Your task to perform on an android device: toggle notification dots Image 0: 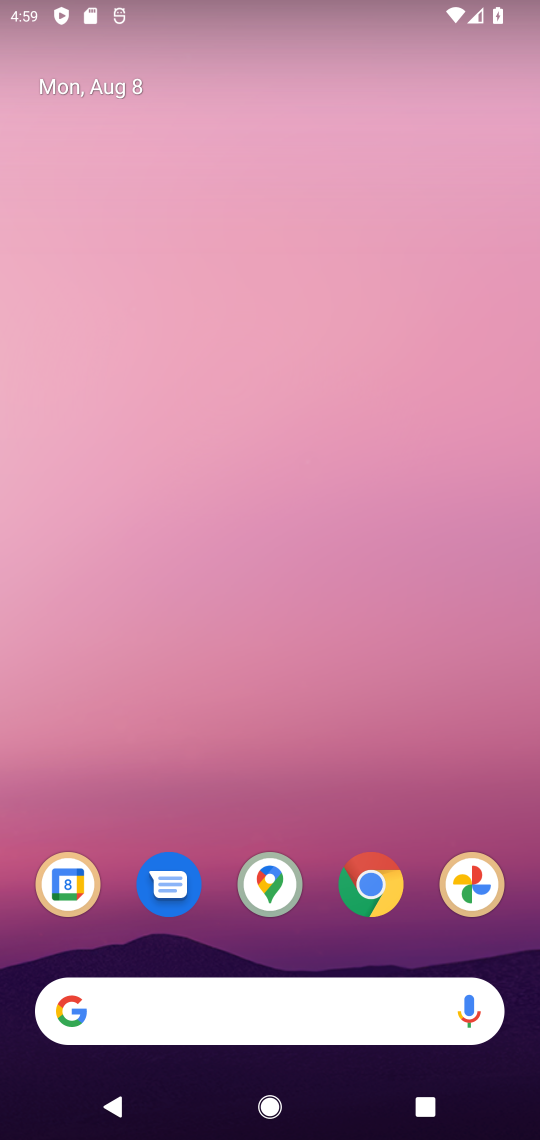
Step 0: drag from (410, 836) to (263, 39)
Your task to perform on an android device: toggle notification dots Image 1: 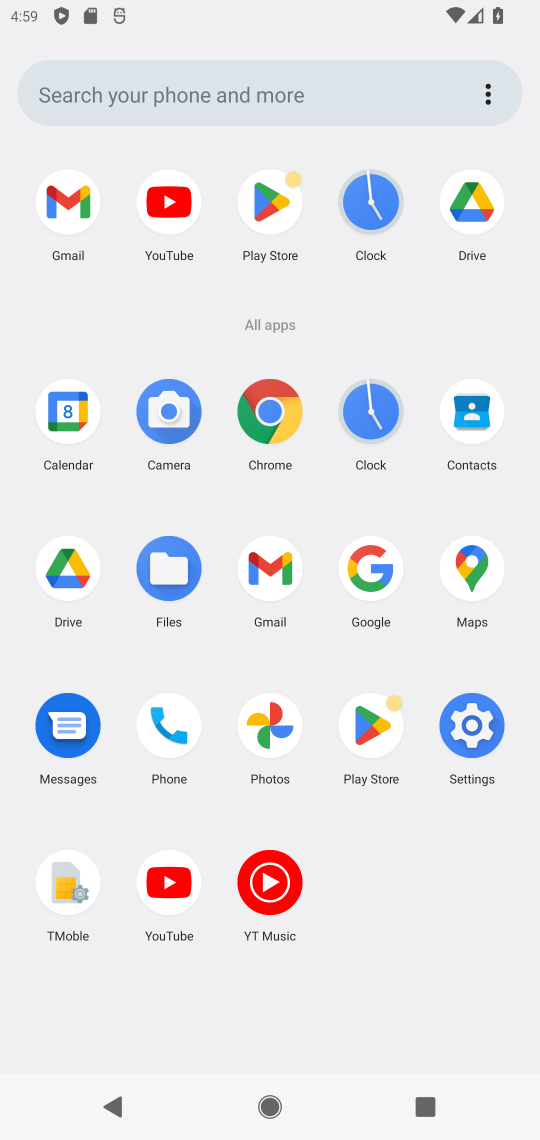
Step 1: click (476, 727)
Your task to perform on an android device: toggle notification dots Image 2: 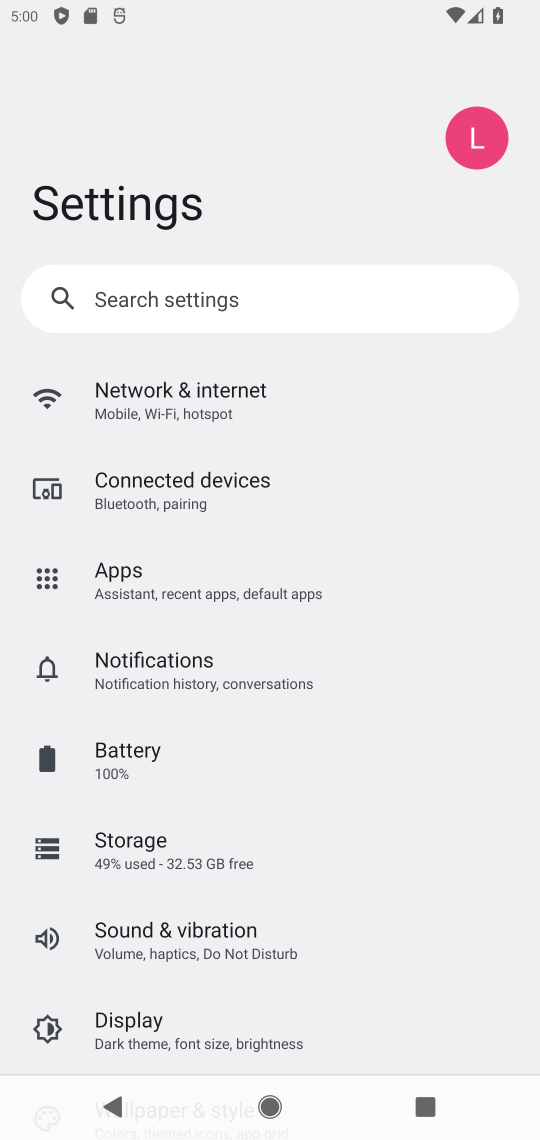
Step 2: drag from (324, 1056) to (248, 456)
Your task to perform on an android device: toggle notification dots Image 3: 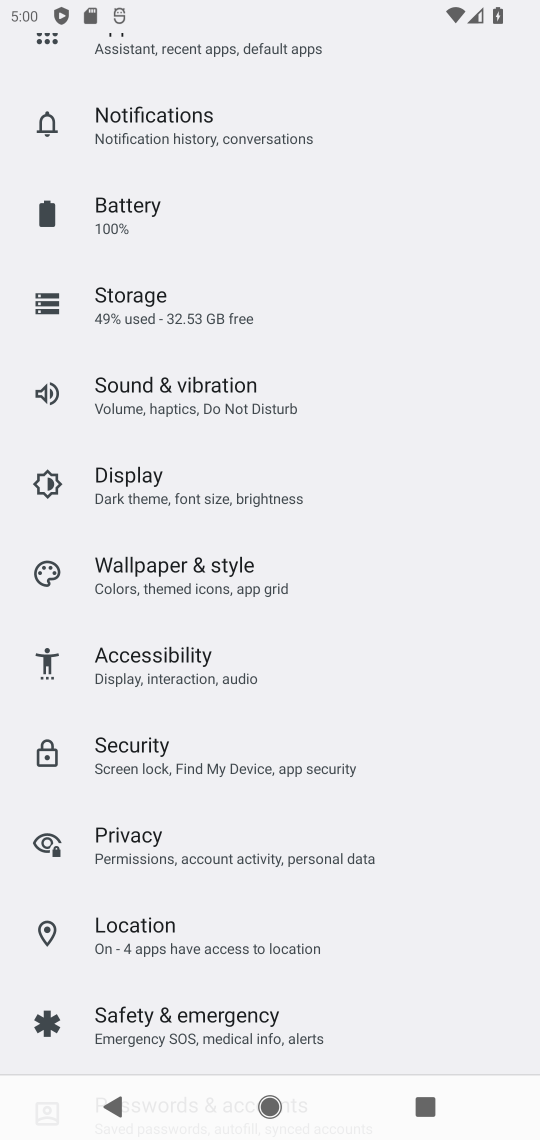
Step 3: click (203, 127)
Your task to perform on an android device: toggle notification dots Image 4: 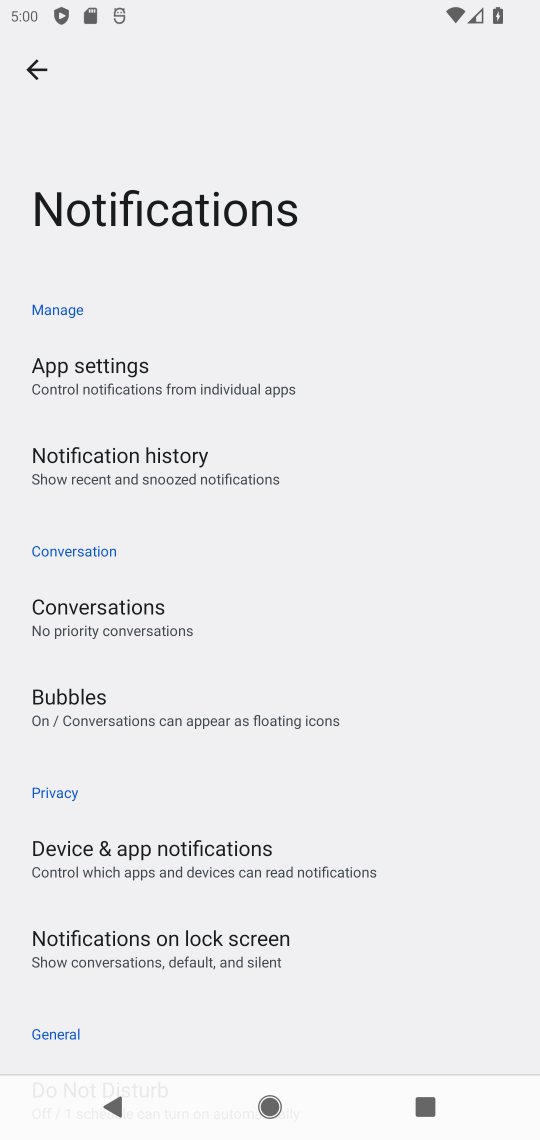
Step 4: drag from (305, 1000) to (228, 403)
Your task to perform on an android device: toggle notification dots Image 5: 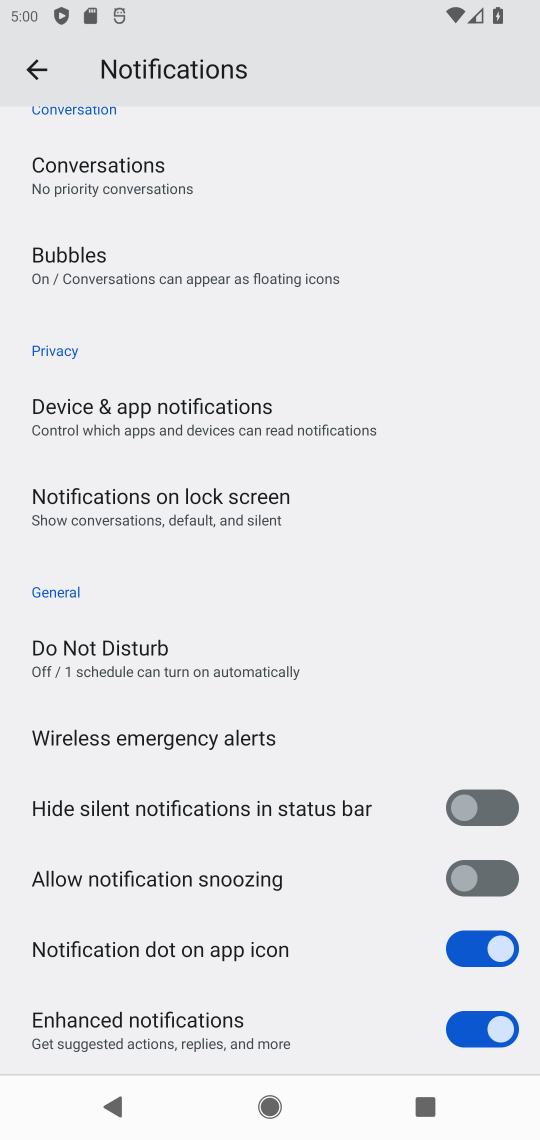
Step 5: click (484, 955)
Your task to perform on an android device: toggle notification dots Image 6: 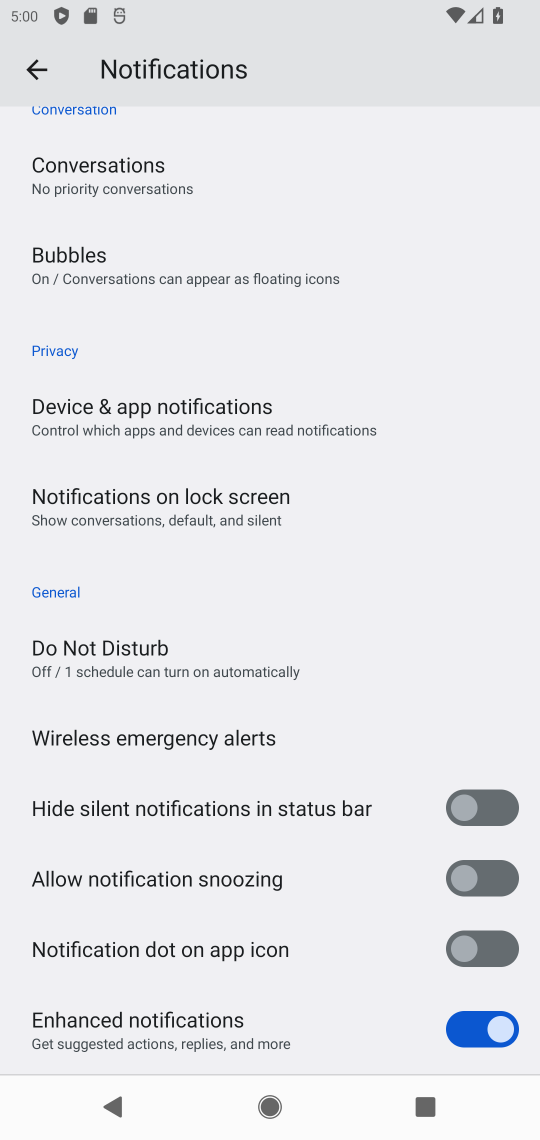
Step 6: task complete